Your task to perform on an android device: turn on bluetooth scan Image 0: 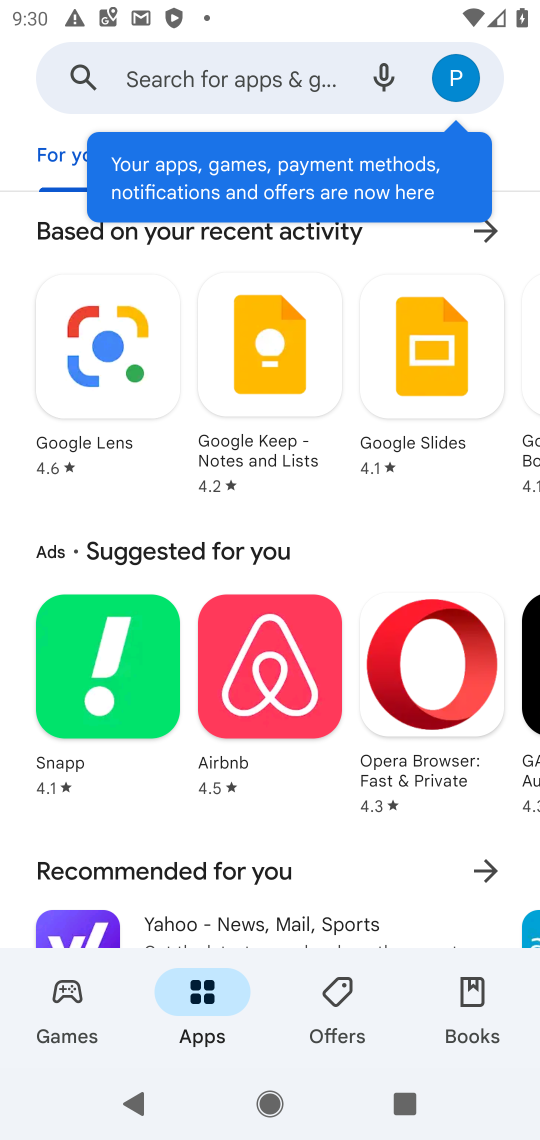
Step 0: press home button
Your task to perform on an android device: turn on bluetooth scan Image 1: 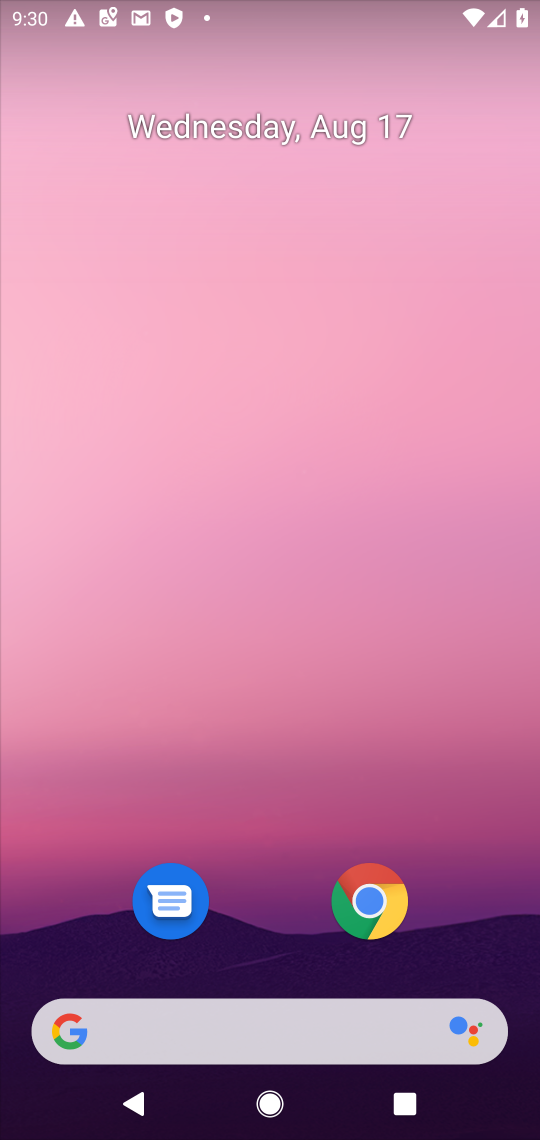
Step 1: drag from (288, 866) to (359, 165)
Your task to perform on an android device: turn on bluetooth scan Image 2: 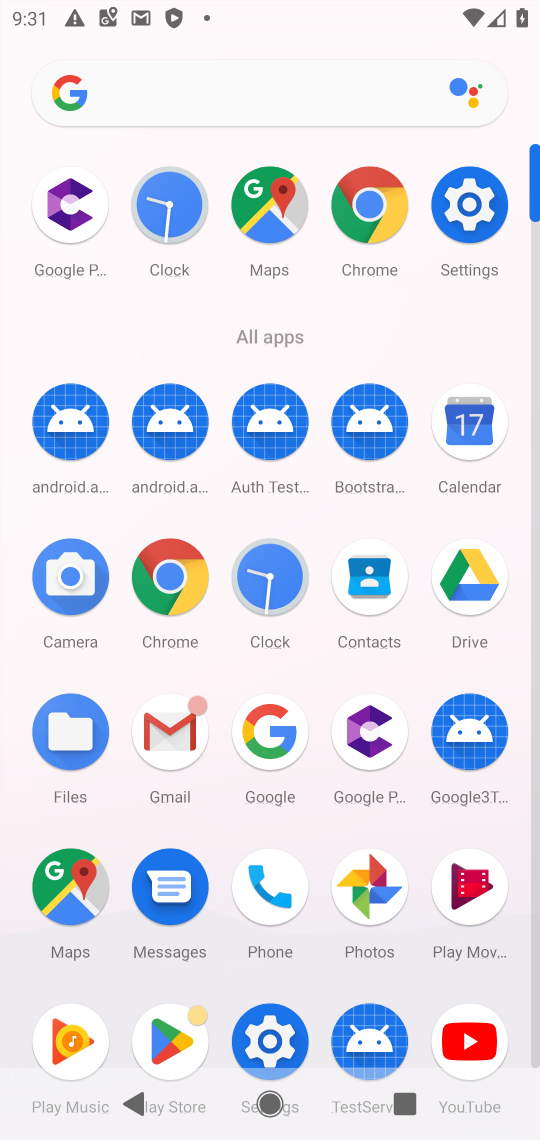
Step 2: click (285, 578)
Your task to perform on an android device: turn on bluetooth scan Image 3: 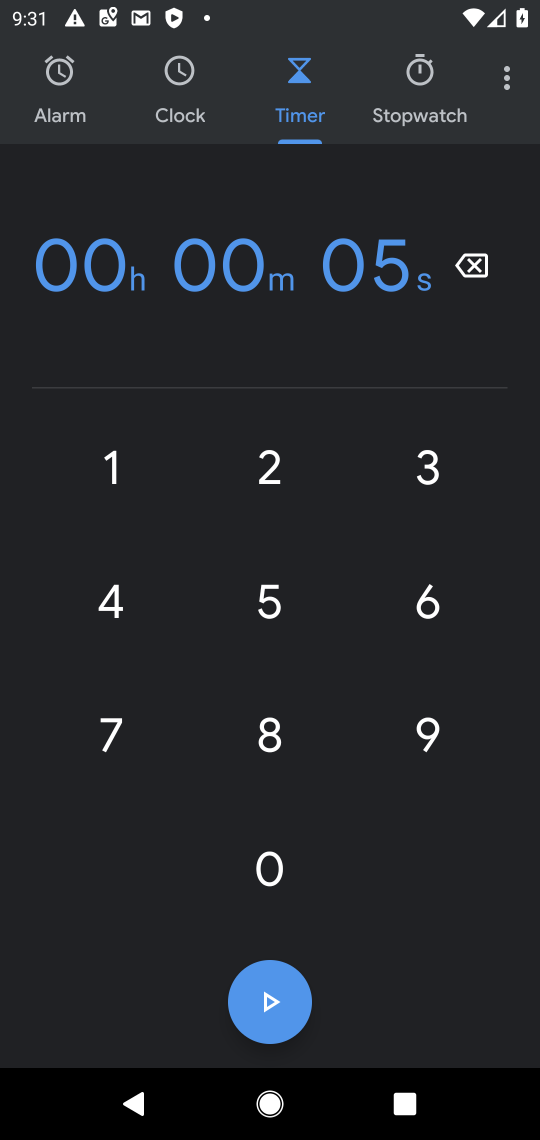
Step 3: click (511, 84)
Your task to perform on an android device: turn on bluetooth scan Image 4: 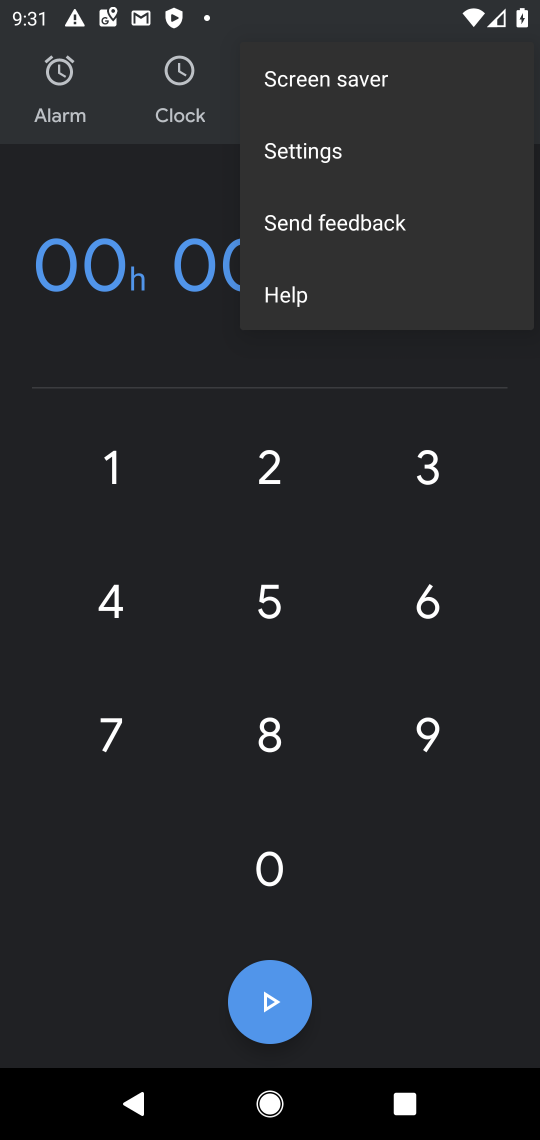
Step 4: click (352, 166)
Your task to perform on an android device: turn on bluetooth scan Image 5: 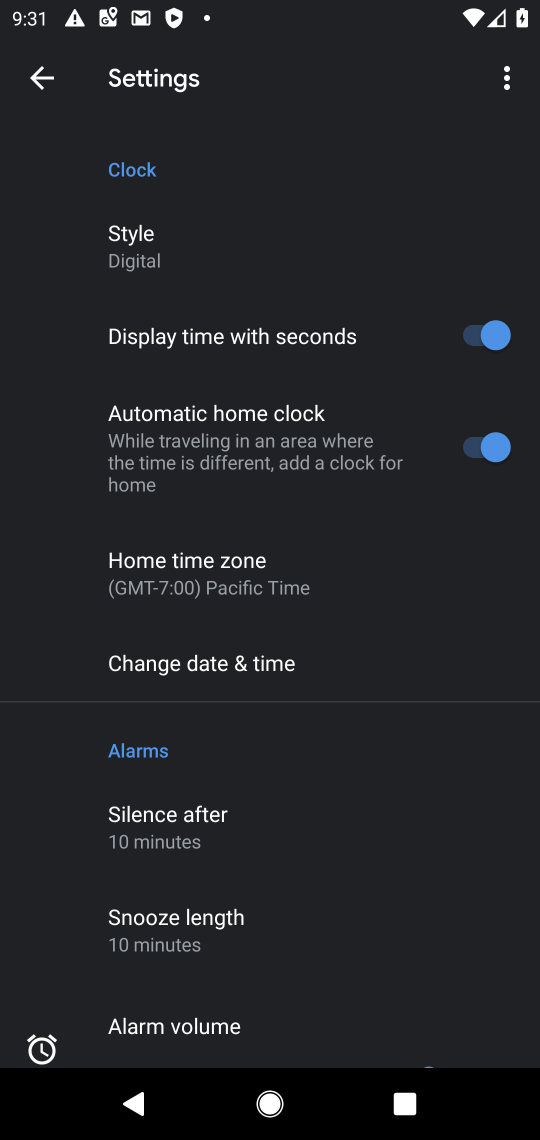
Step 5: press home button
Your task to perform on an android device: turn on bluetooth scan Image 6: 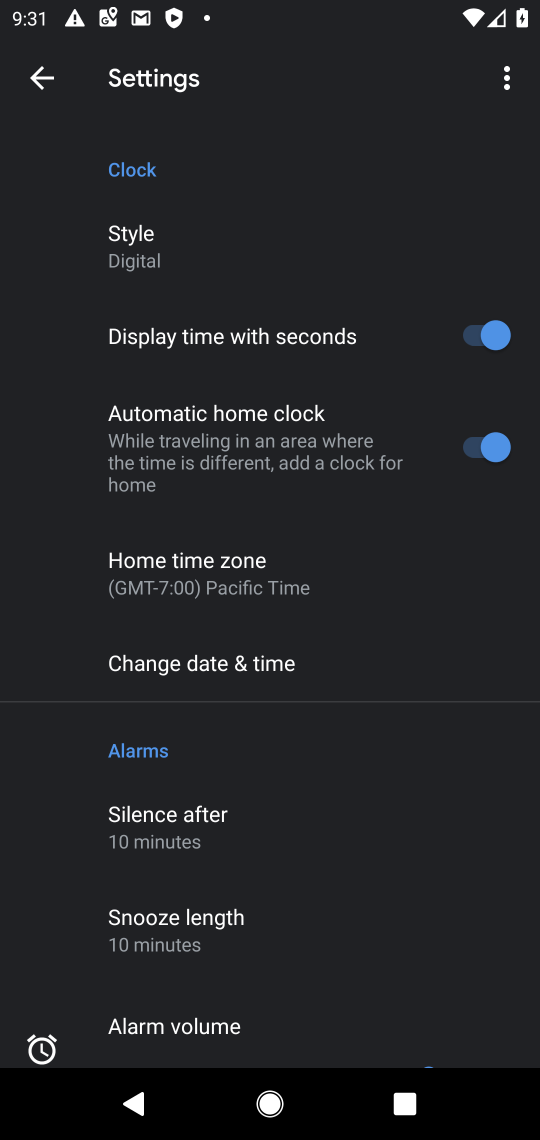
Step 6: press home button
Your task to perform on an android device: turn on bluetooth scan Image 7: 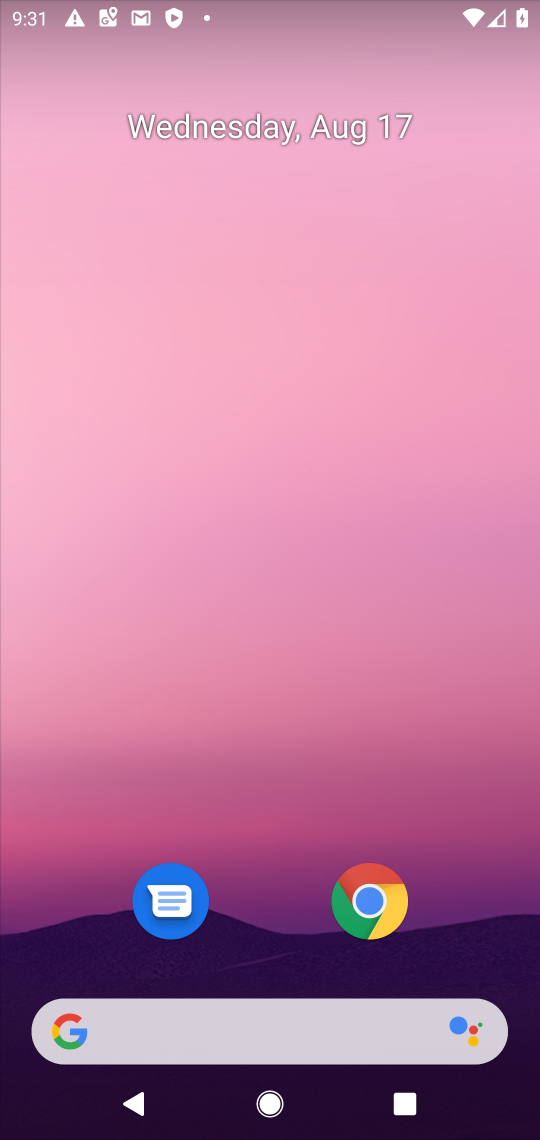
Step 7: drag from (281, 965) to (309, 191)
Your task to perform on an android device: turn on bluetooth scan Image 8: 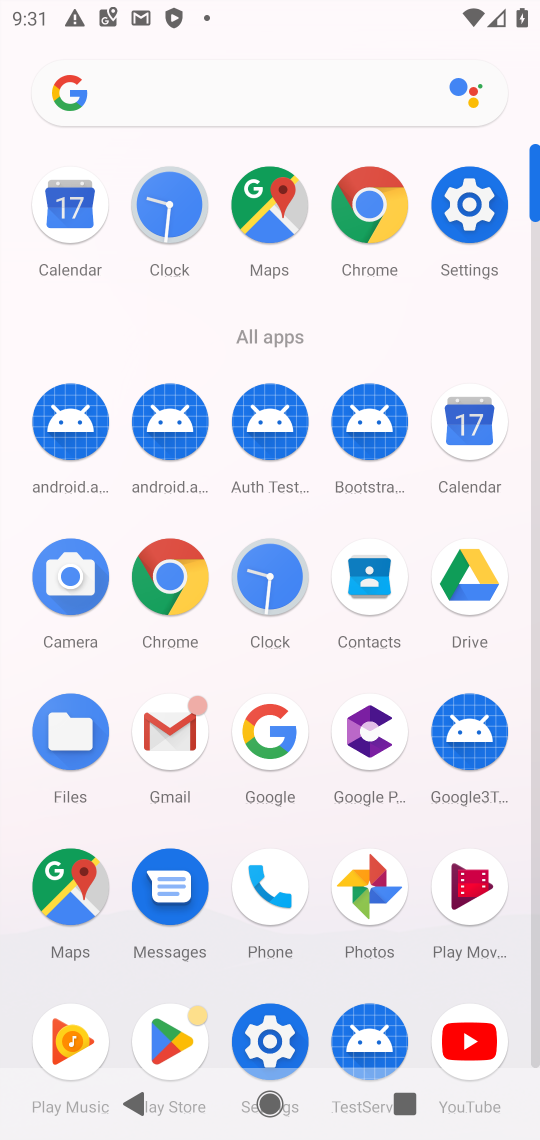
Step 8: click (253, 1067)
Your task to perform on an android device: turn on bluetooth scan Image 9: 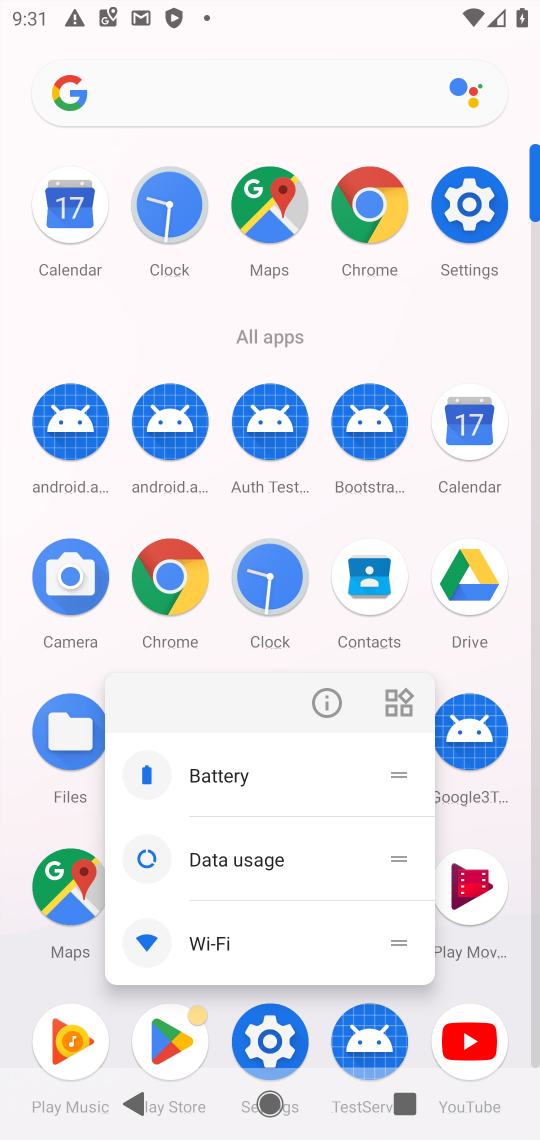
Step 9: click (266, 1039)
Your task to perform on an android device: turn on bluetooth scan Image 10: 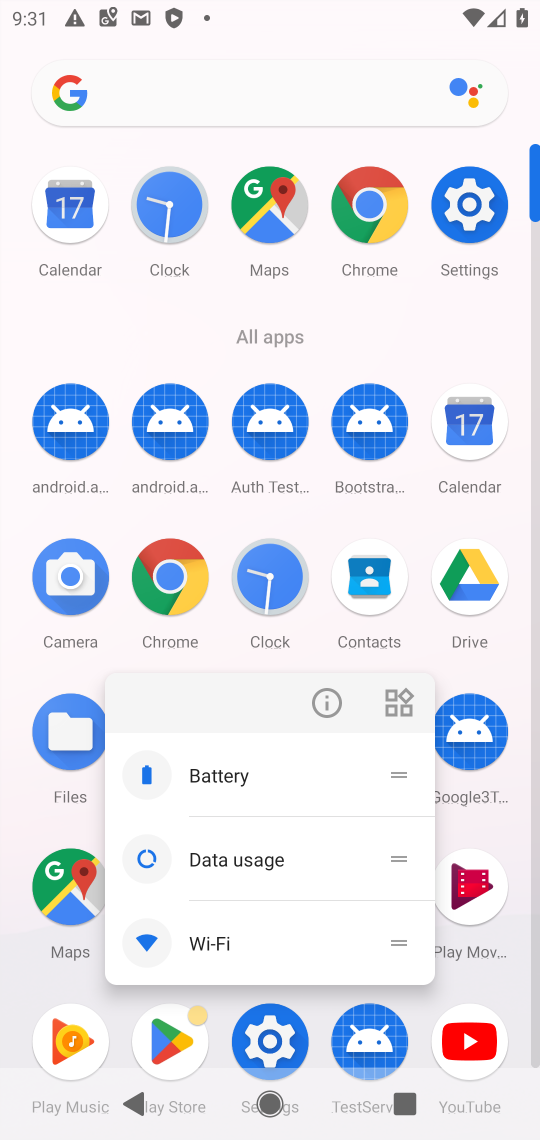
Step 10: click (274, 1039)
Your task to perform on an android device: turn on bluetooth scan Image 11: 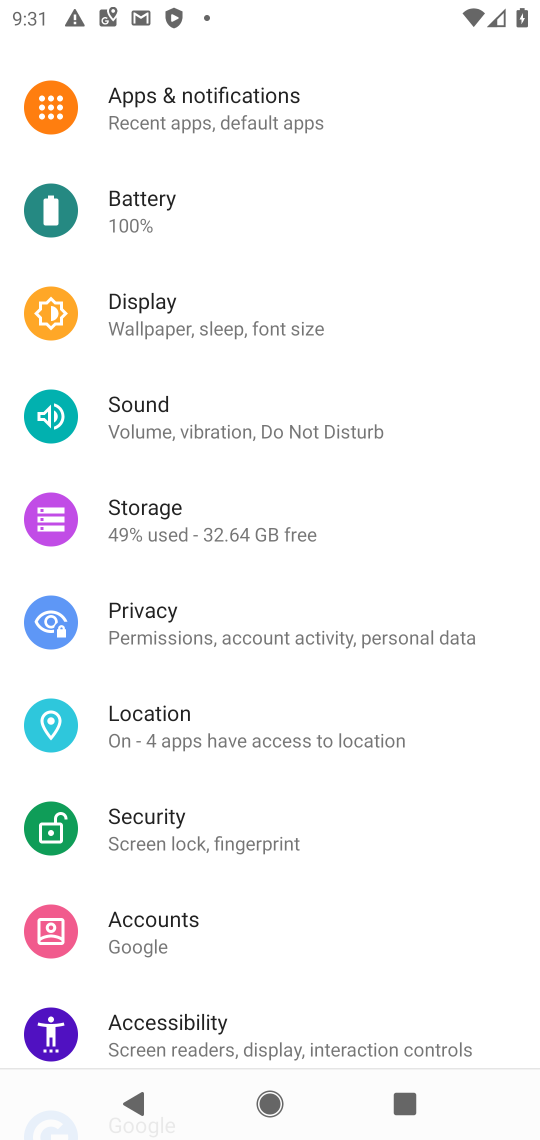
Step 11: click (268, 726)
Your task to perform on an android device: turn on bluetooth scan Image 12: 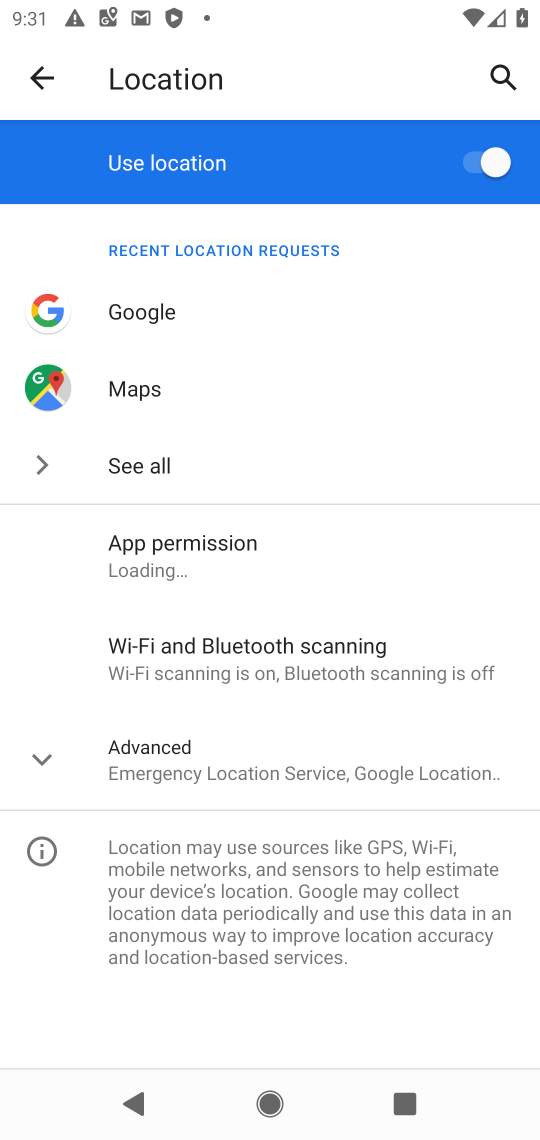
Step 12: click (290, 675)
Your task to perform on an android device: turn on bluetooth scan Image 13: 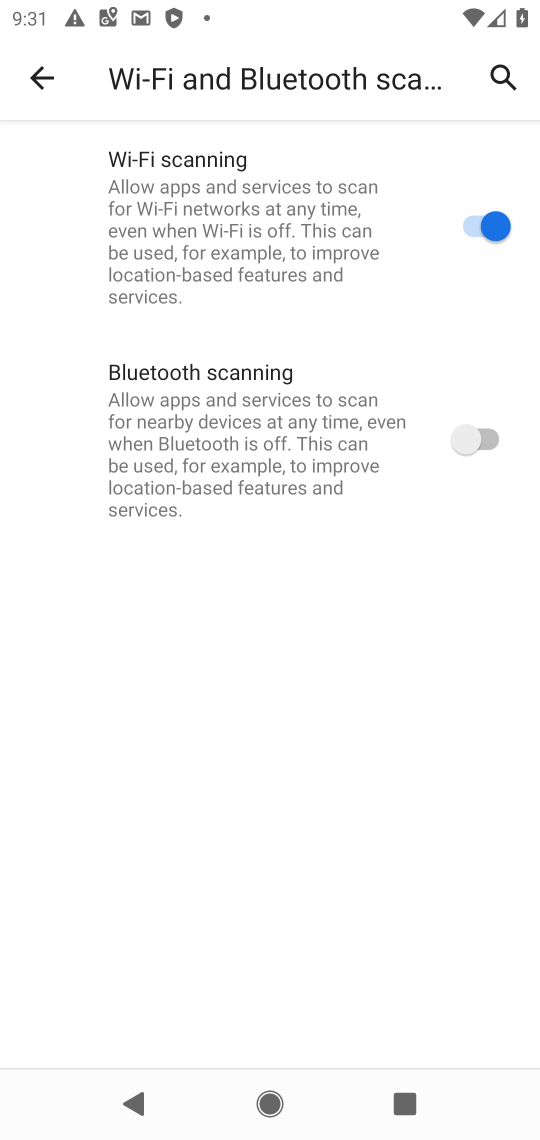
Step 13: click (494, 410)
Your task to perform on an android device: turn on bluetooth scan Image 14: 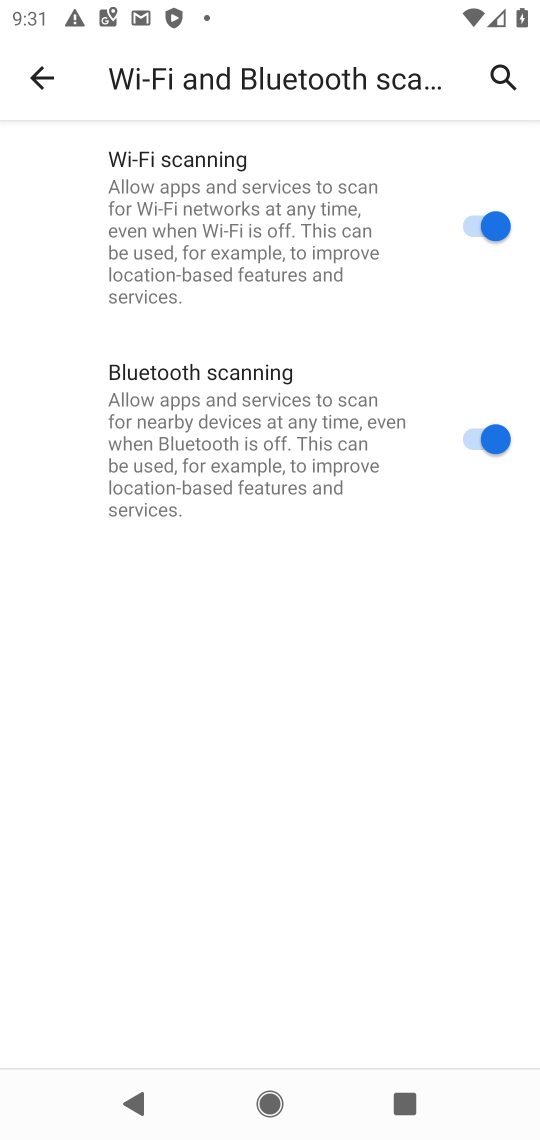
Step 14: task complete